Your task to perform on an android device: open app "Airtel Thanks" Image 0: 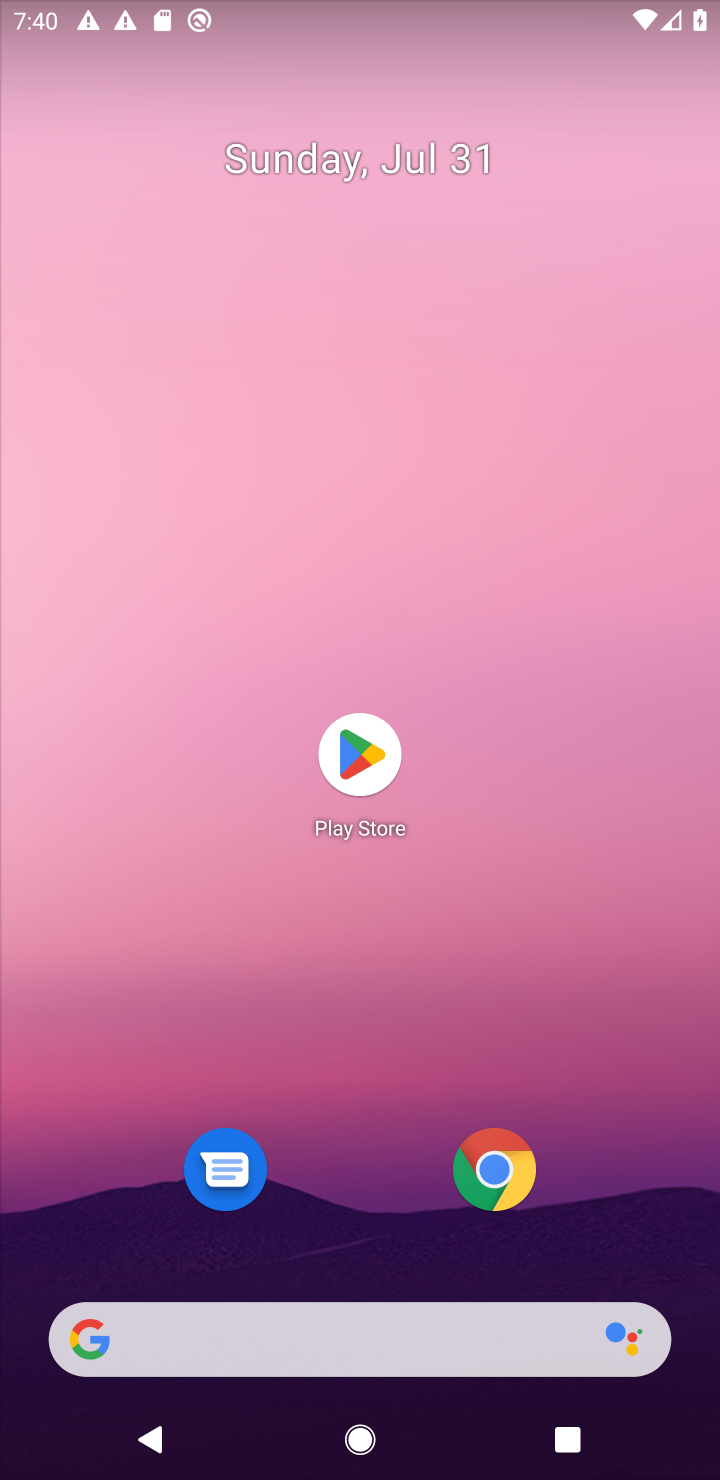
Step 0: click (351, 761)
Your task to perform on an android device: open app "Airtel Thanks" Image 1: 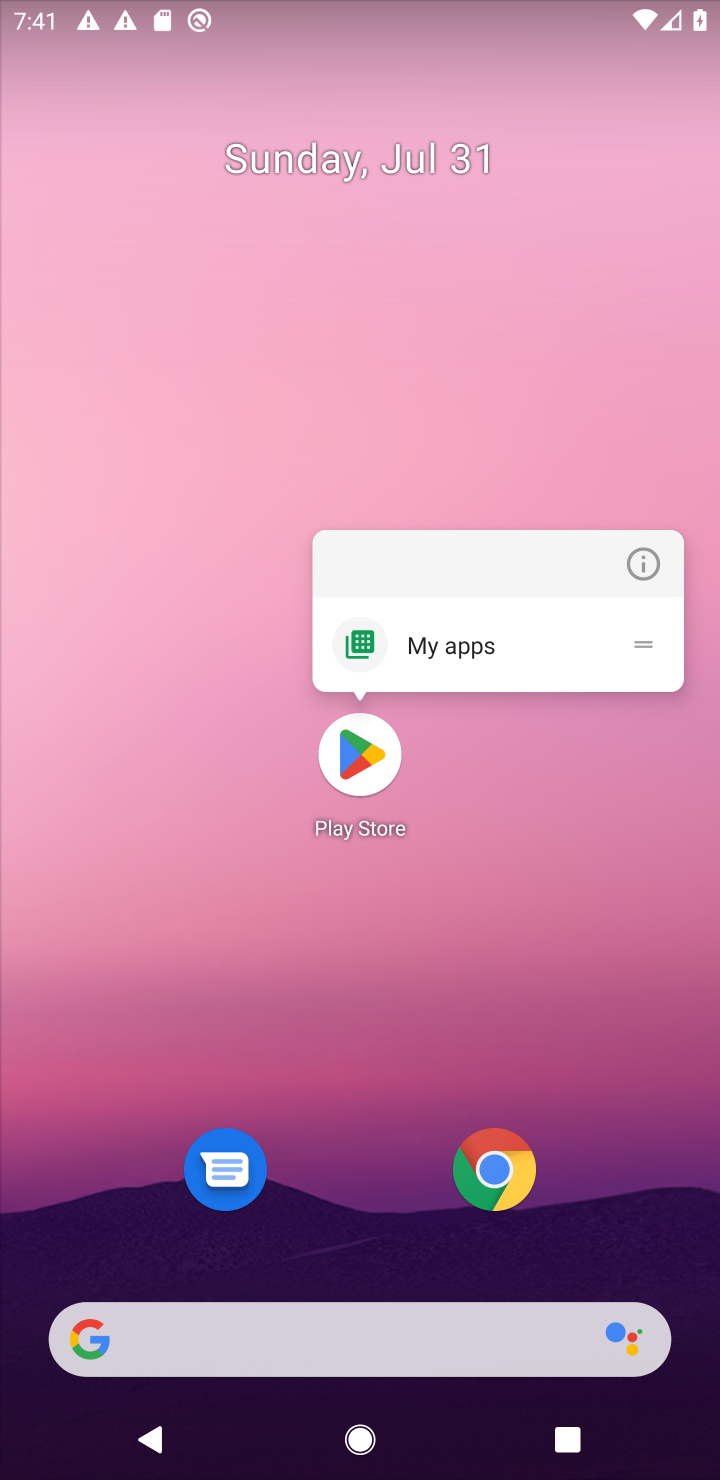
Step 1: click (351, 762)
Your task to perform on an android device: open app "Airtel Thanks" Image 2: 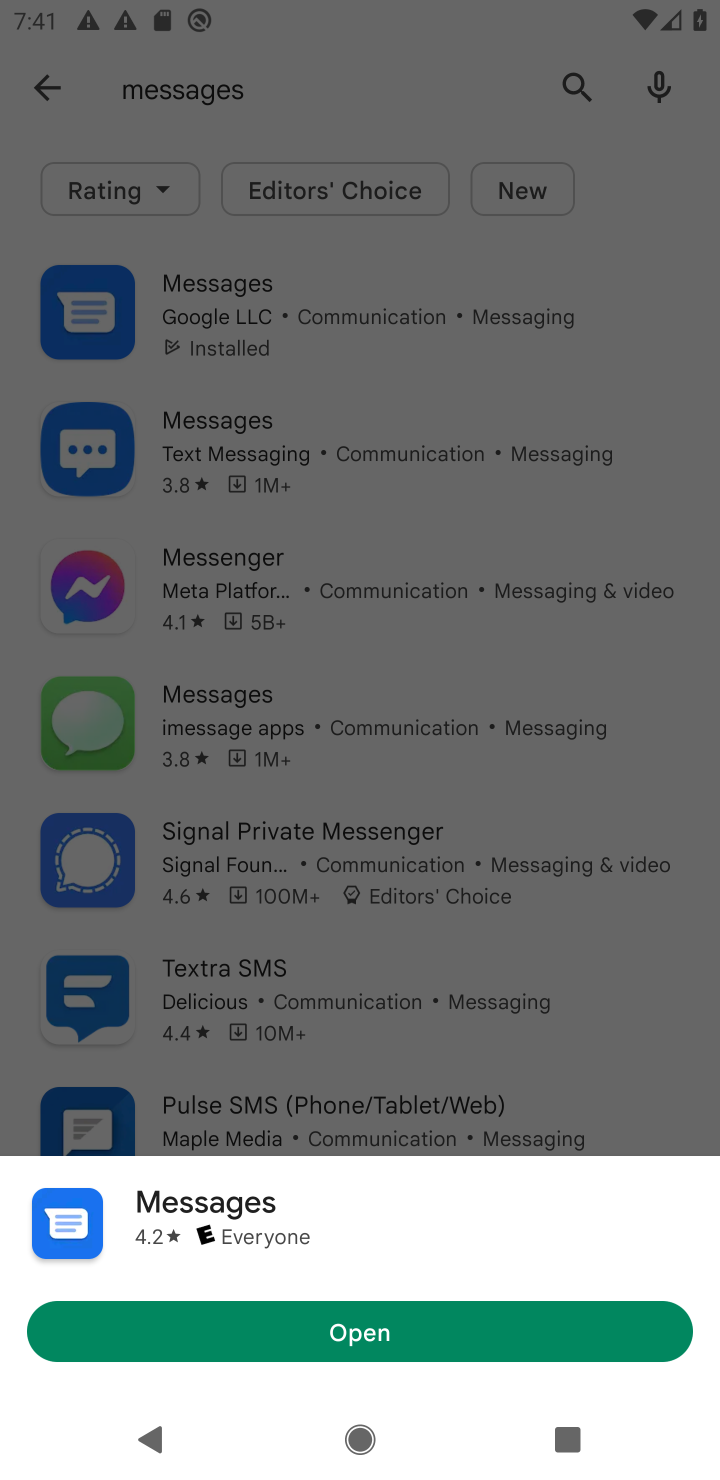
Step 2: click (567, 75)
Your task to perform on an android device: open app "Airtel Thanks" Image 3: 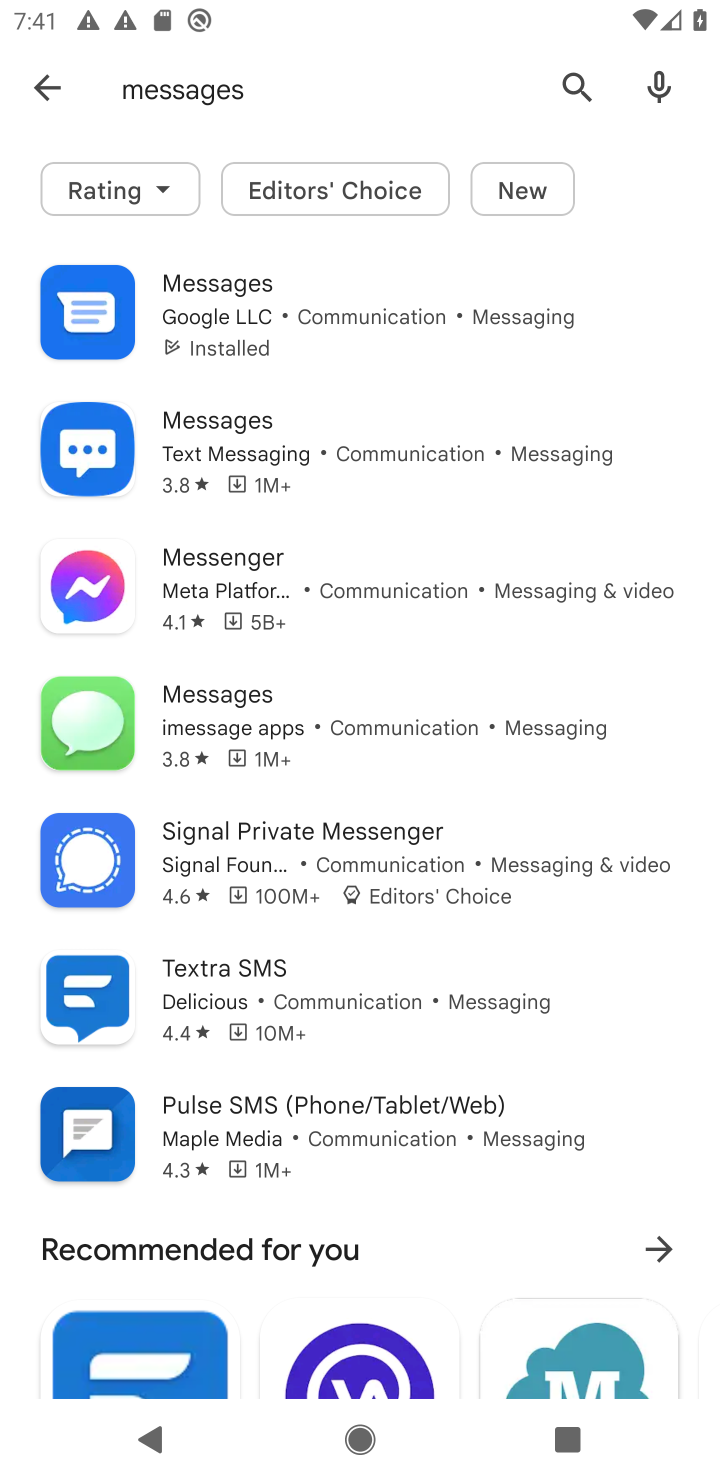
Step 3: click (565, 78)
Your task to perform on an android device: open app "Airtel Thanks" Image 4: 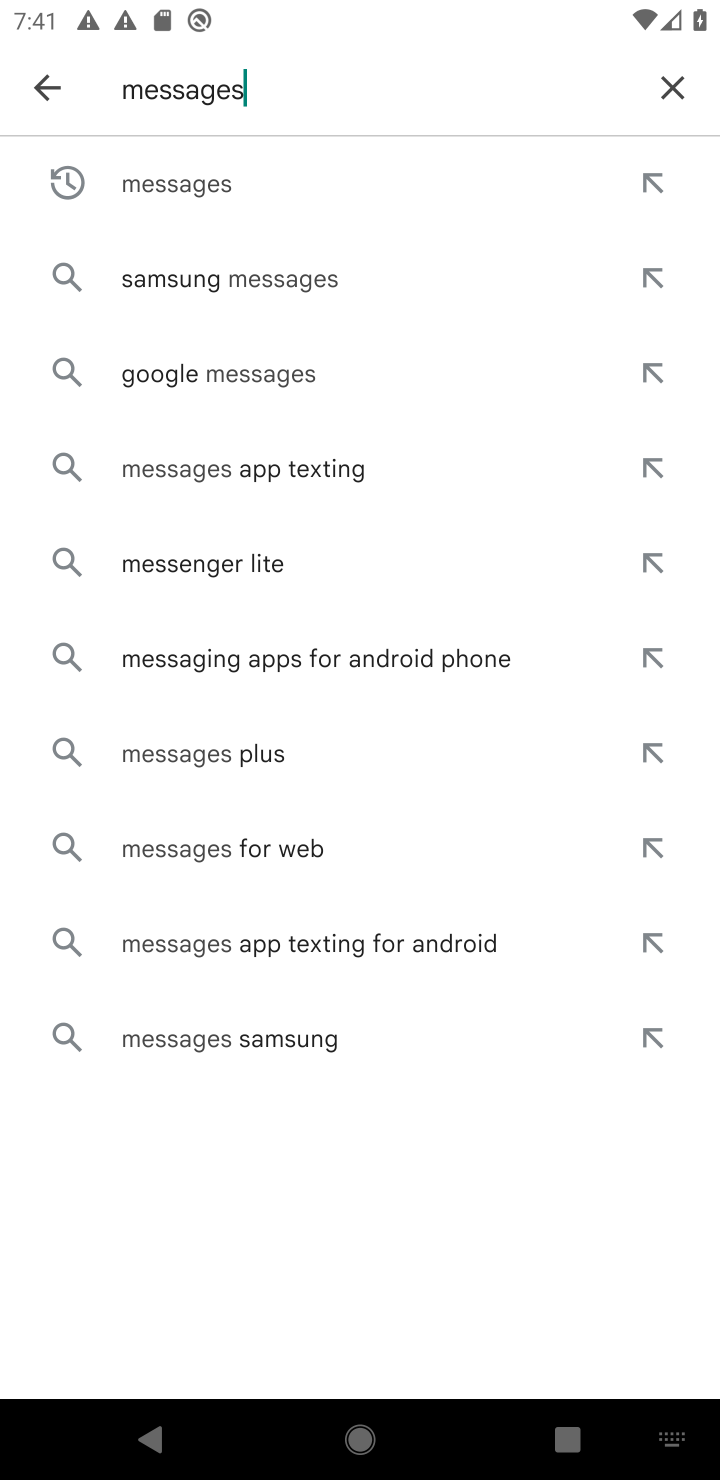
Step 4: click (682, 88)
Your task to perform on an android device: open app "Airtel Thanks" Image 5: 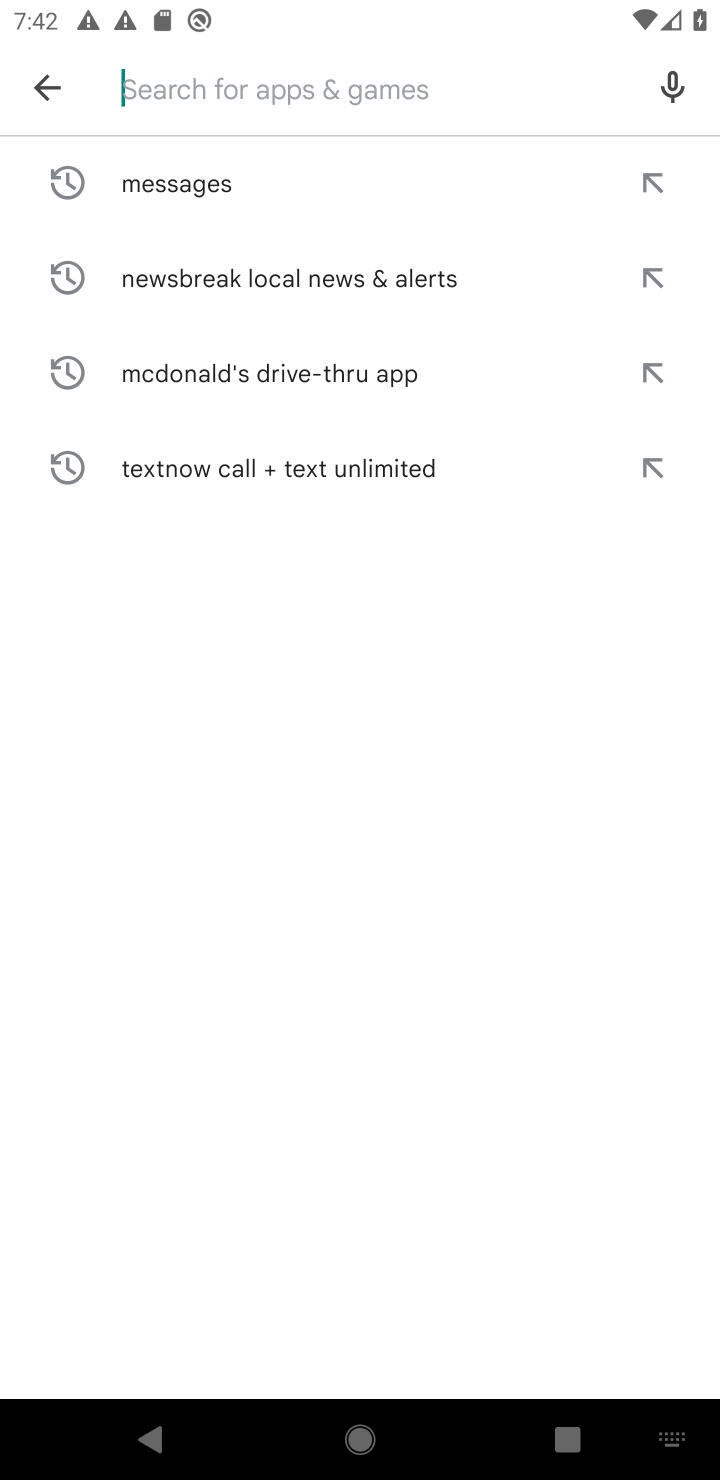
Step 5: type "Airtel Thanks"
Your task to perform on an android device: open app "Airtel Thanks" Image 6: 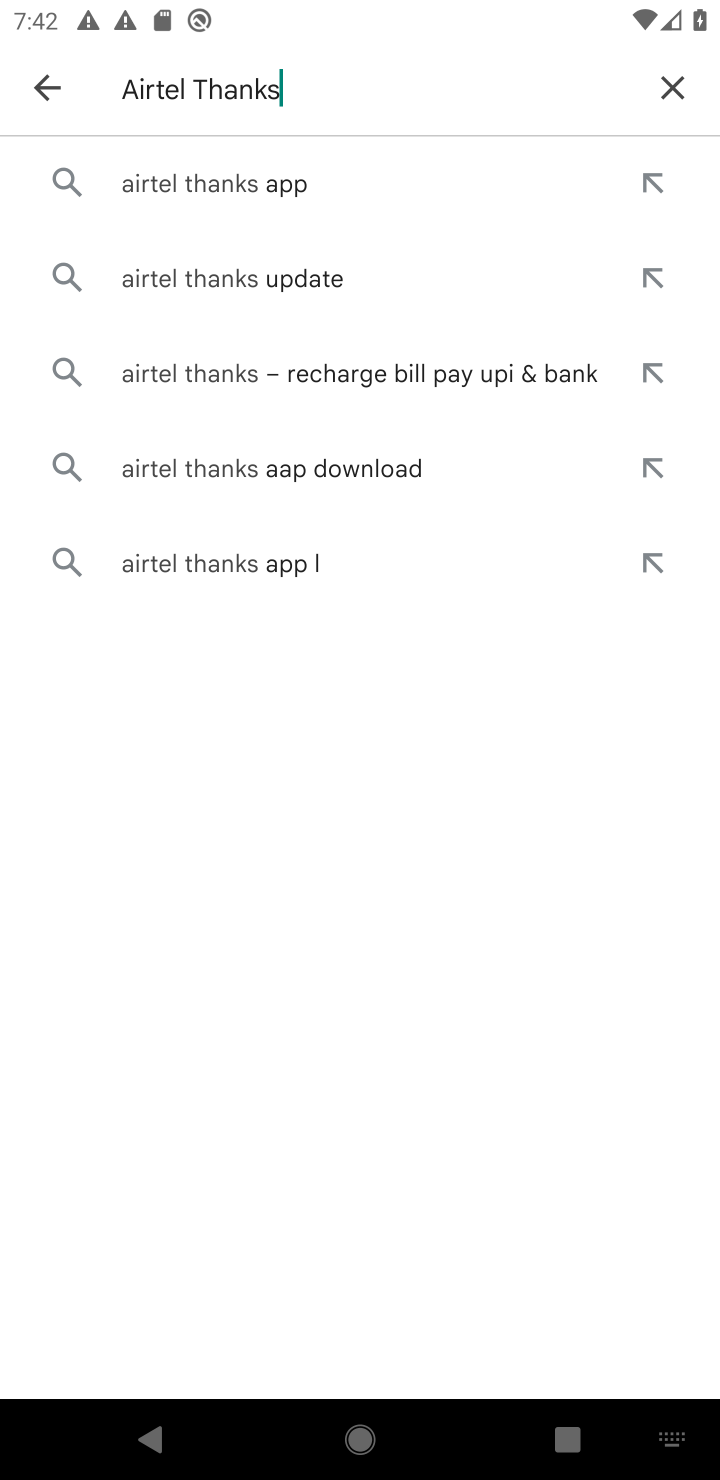
Step 6: click (200, 190)
Your task to perform on an android device: open app "Airtel Thanks" Image 7: 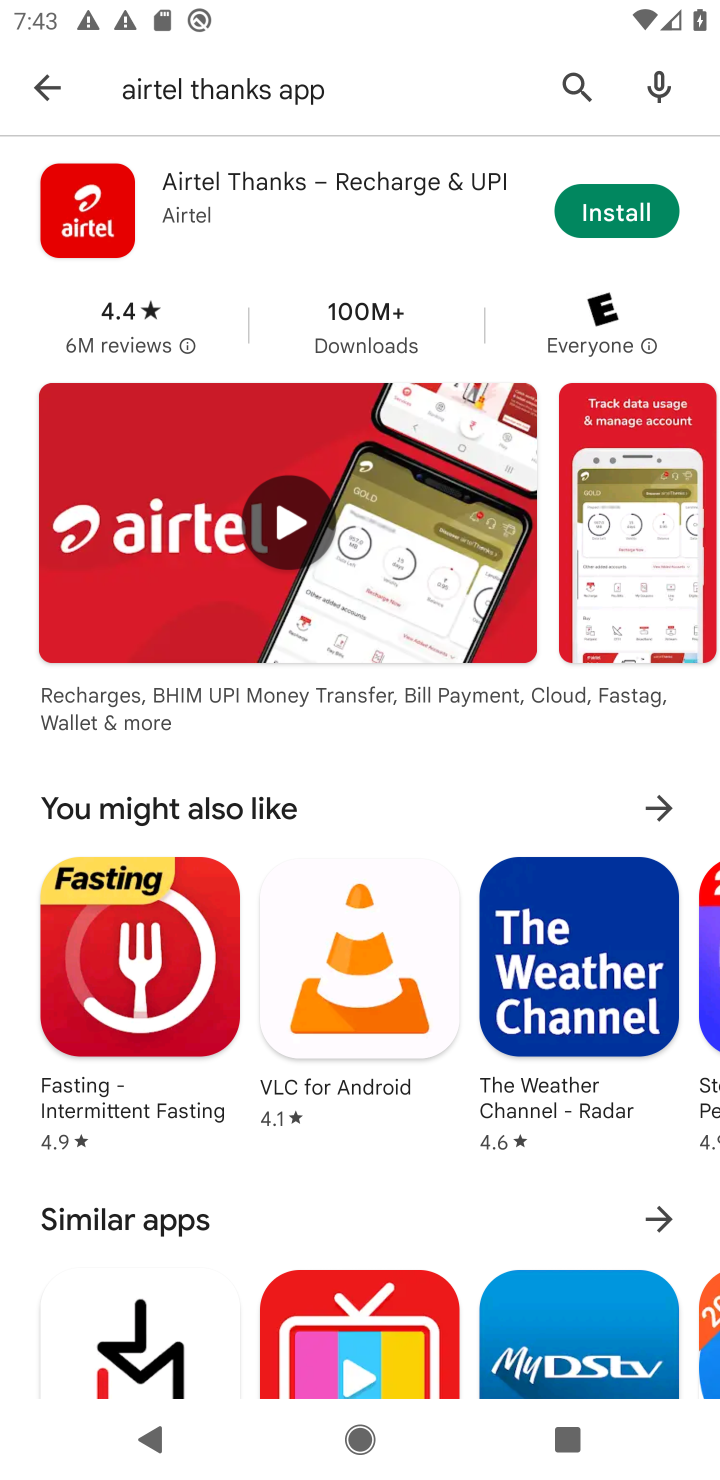
Step 7: task complete